Your task to perform on an android device: Search for razer kraken on bestbuy, select the first entry, and add it to the cart. Image 0: 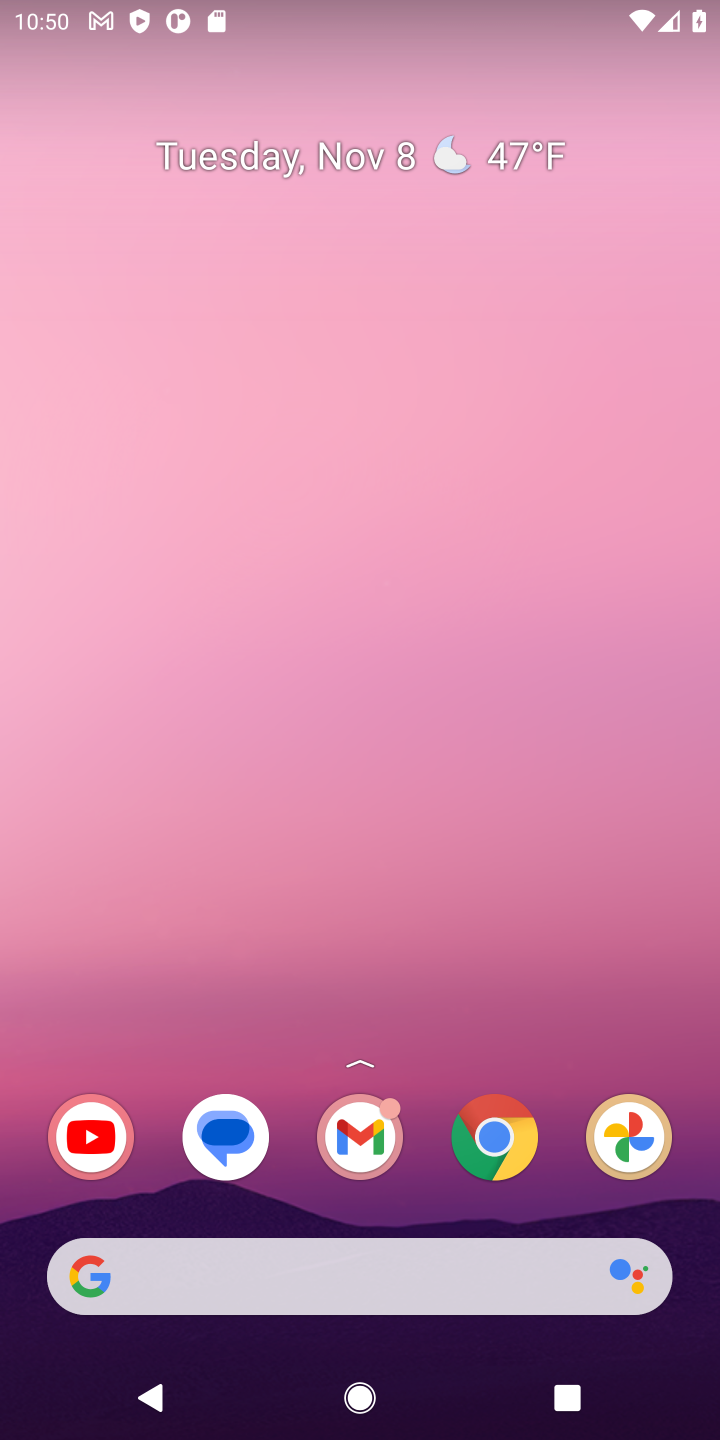
Step 0: click (494, 1137)
Your task to perform on an android device: Search for razer kraken on bestbuy, select the first entry, and add it to the cart. Image 1: 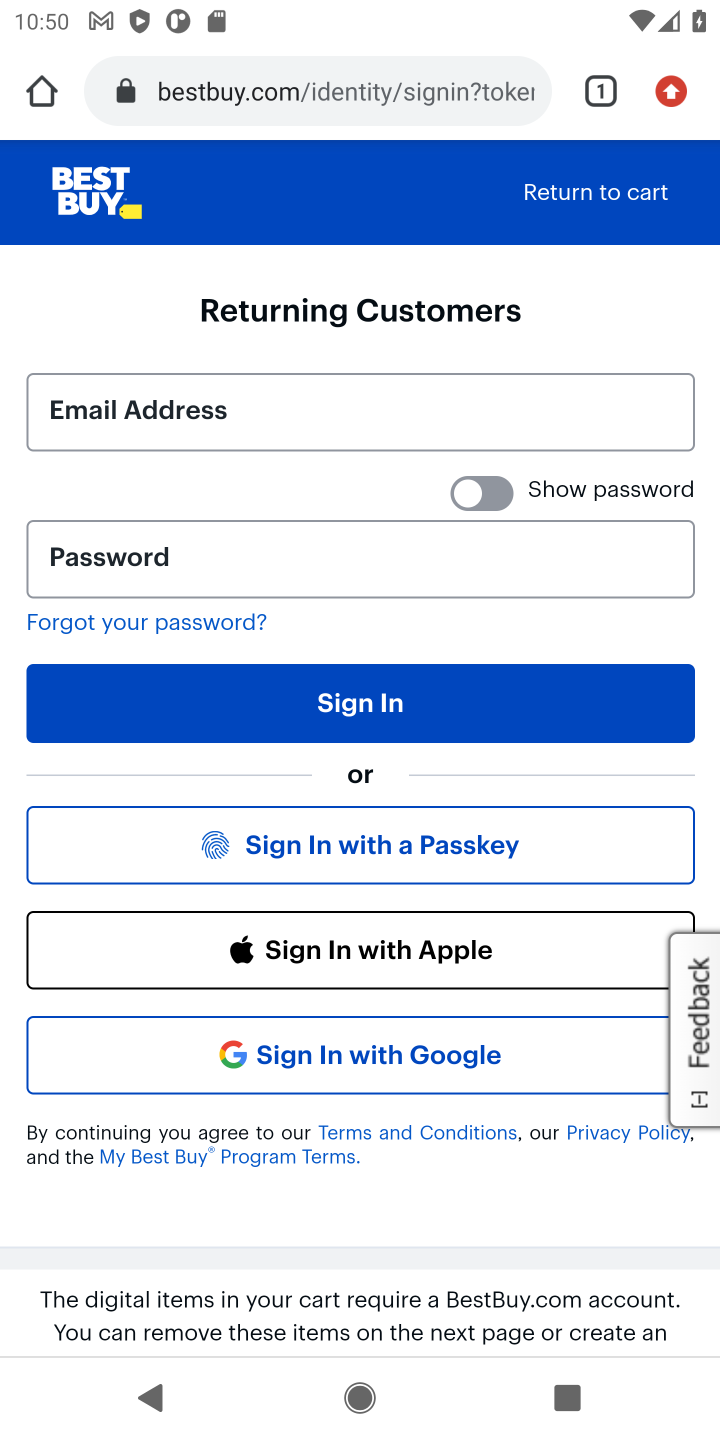
Step 1: click (414, 95)
Your task to perform on an android device: Search for razer kraken on bestbuy, select the first entry, and add it to the cart. Image 2: 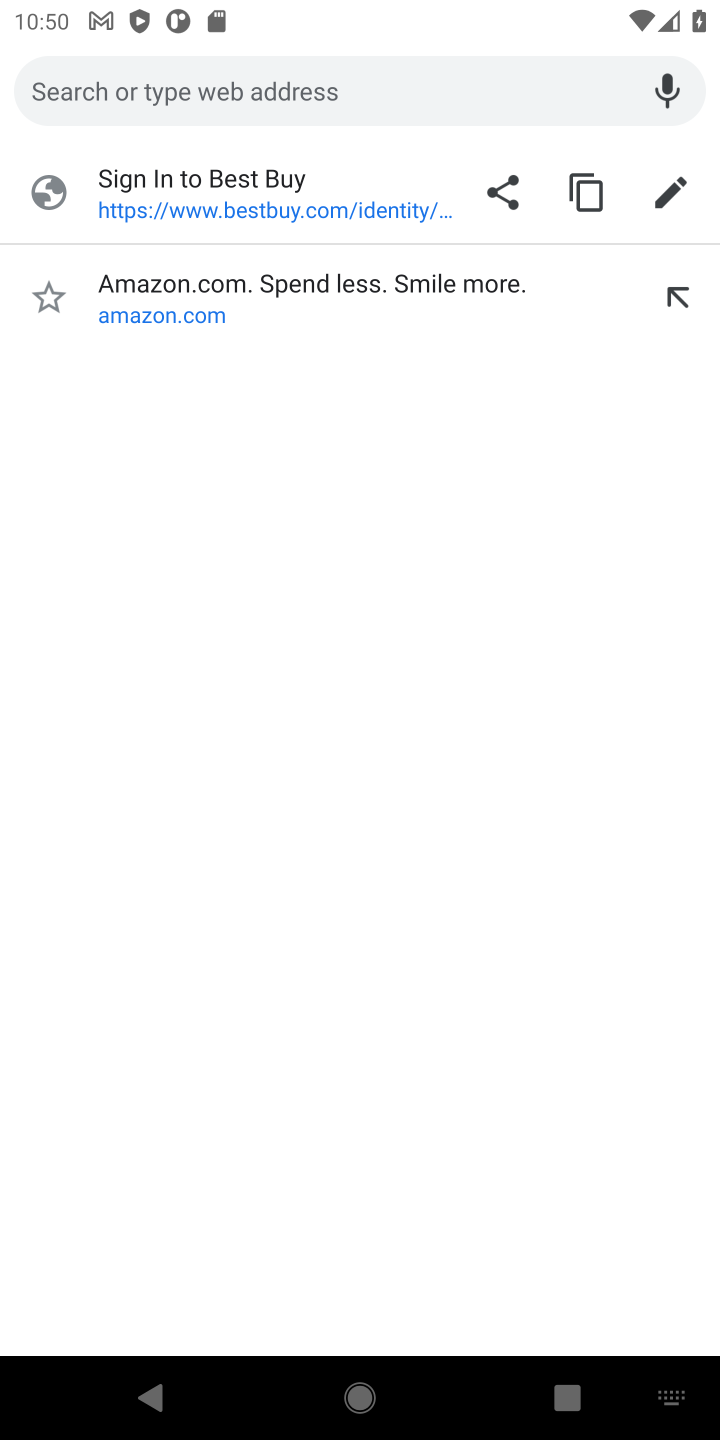
Step 2: type "bestbuy"
Your task to perform on an android device: Search for razer kraken on bestbuy, select the first entry, and add it to the cart. Image 3: 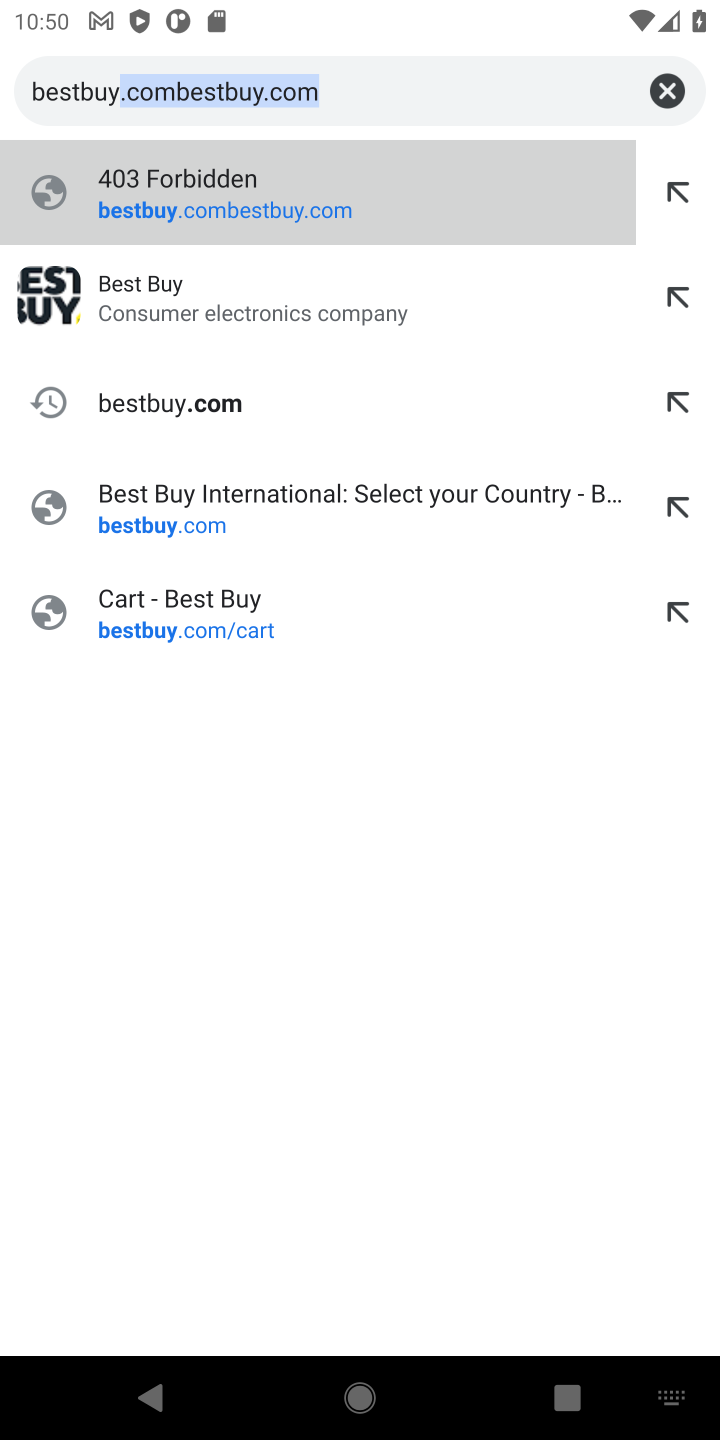
Step 3: click (155, 307)
Your task to perform on an android device: Search for razer kraken on bestbuy, select the first entry, and add it to the cart. Image 4: 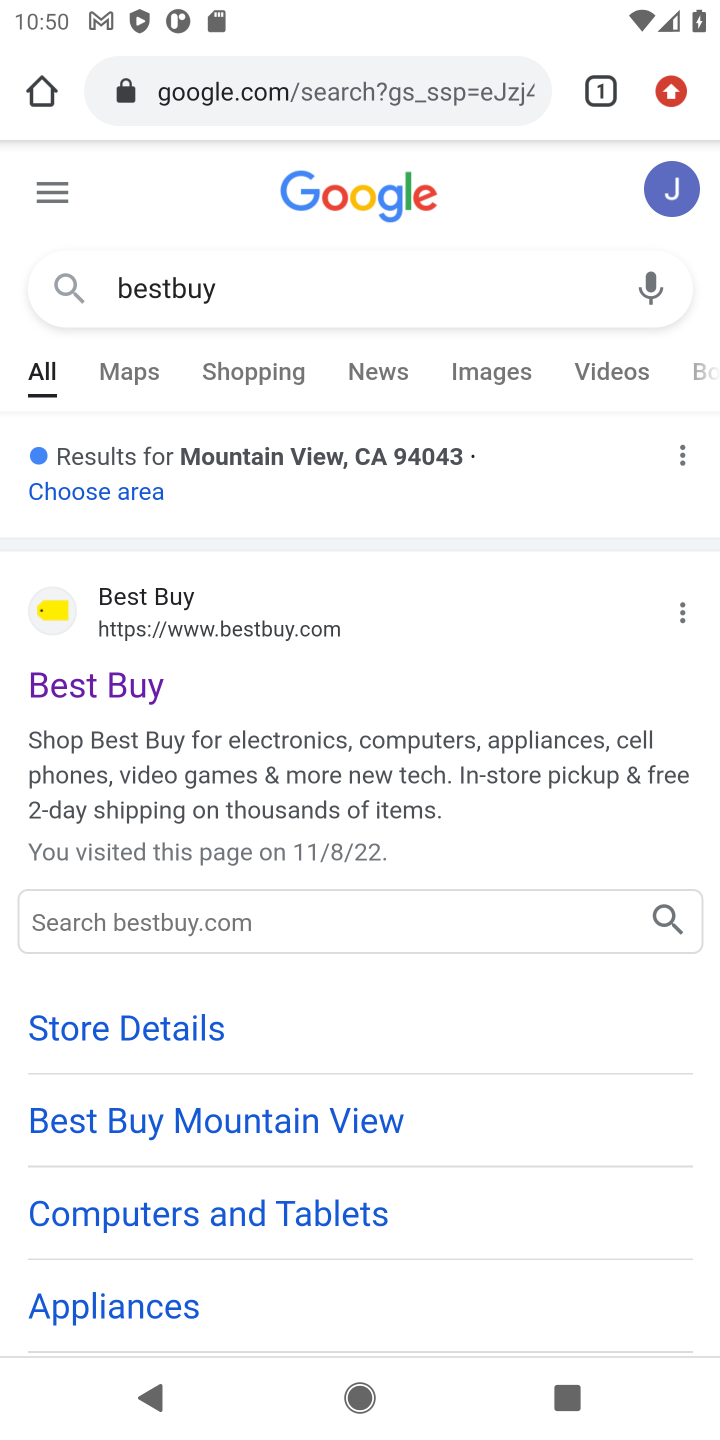
Step 4: click (138, 693)
Your task to perform on an android device: Search for razer kraken on bestbuy, select the first entry, and add it to the cart. Image 5: 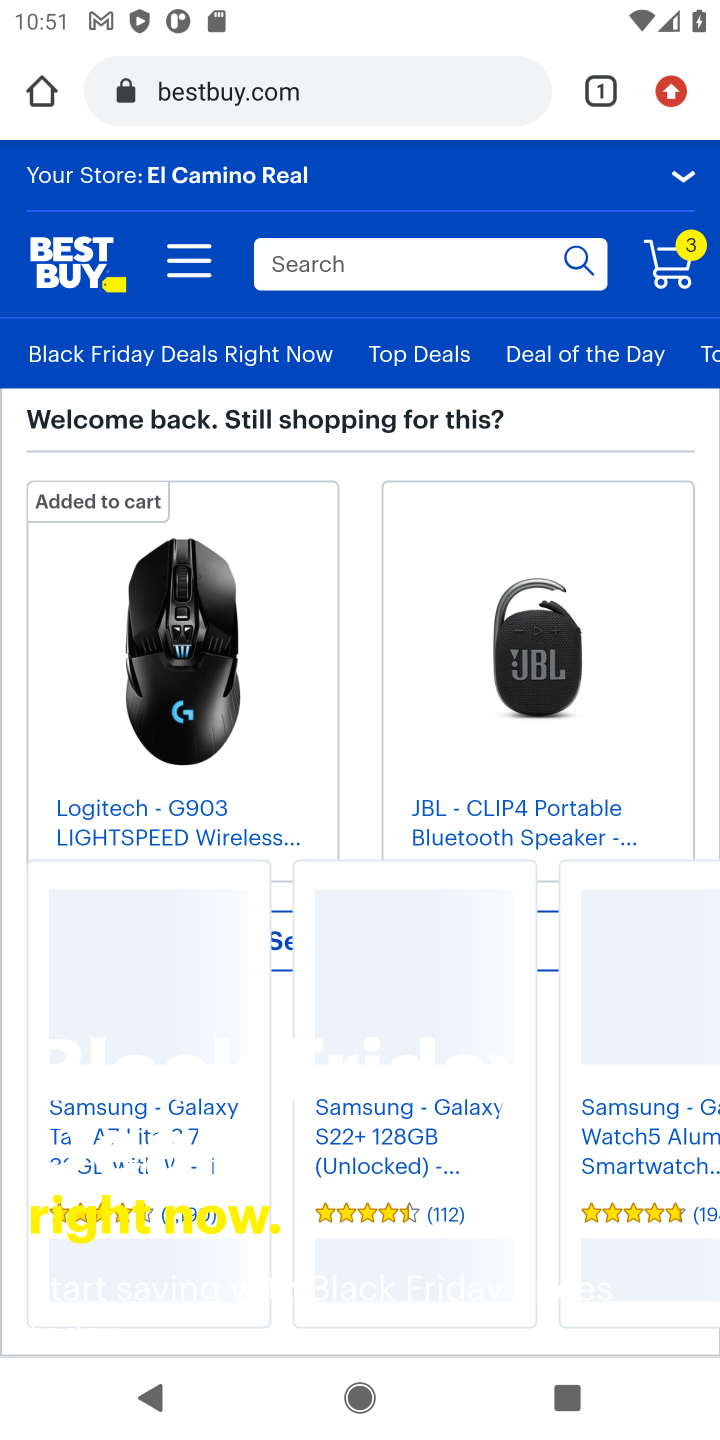
Step 5: click (400, 262)
Your task to perform on an android device: Search for razer kraken on bestbuy, select the first entry, and add it to the cart. Image 6: 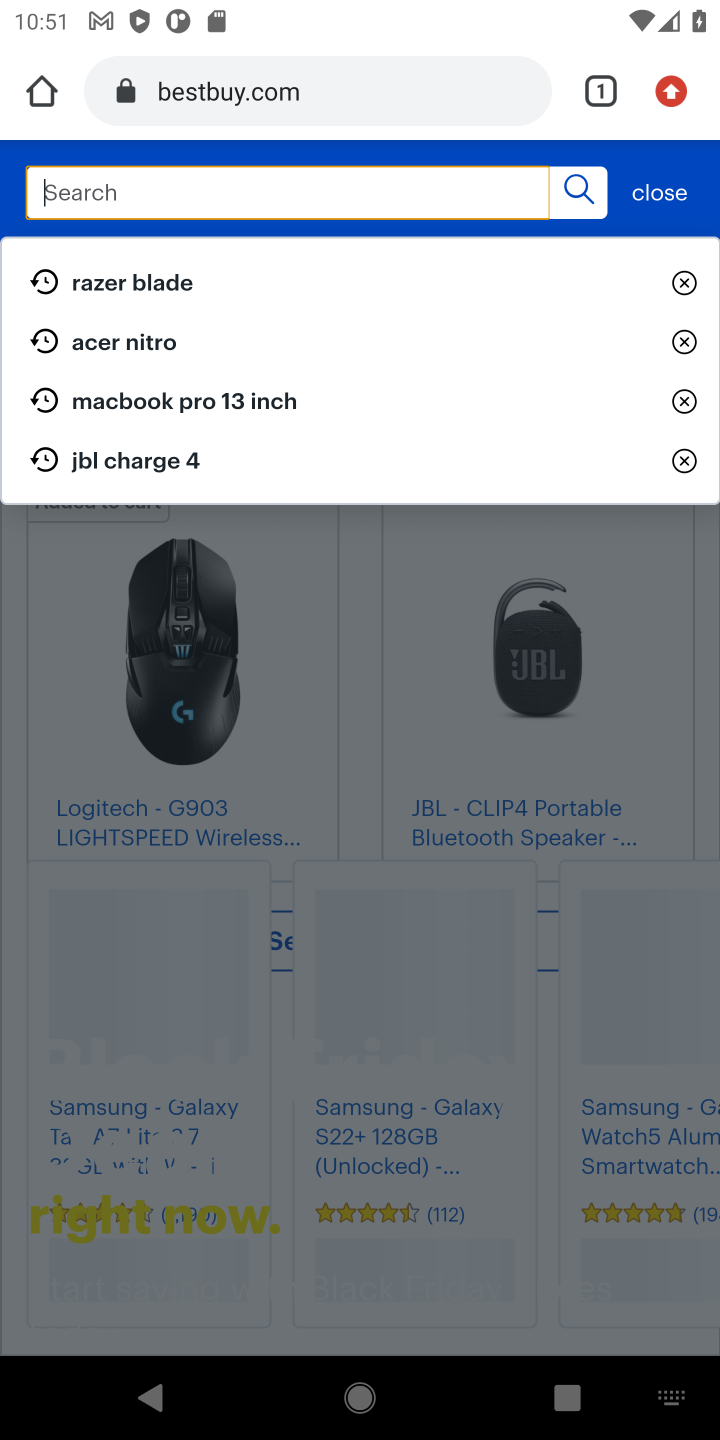
Step 6: type "razer kraken "
Your task to perform on an android device: Search for razer kraken on bestbuy, select the first entry, and add it to the cart. Image 7: 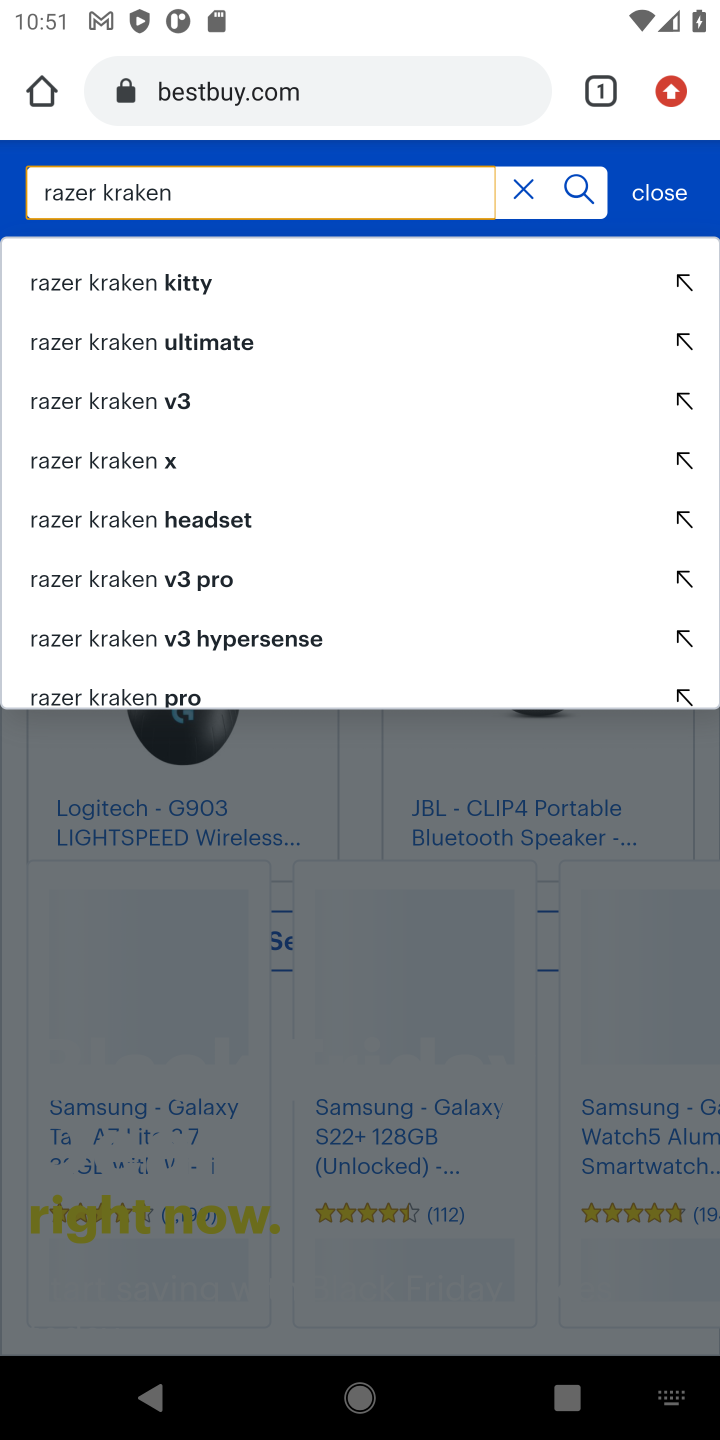
Step 7: click (588, 192)
Your task to perform on an android device: Search for razer kraken on bestbuy, select the first entry, and add it to the cart. Image 8: 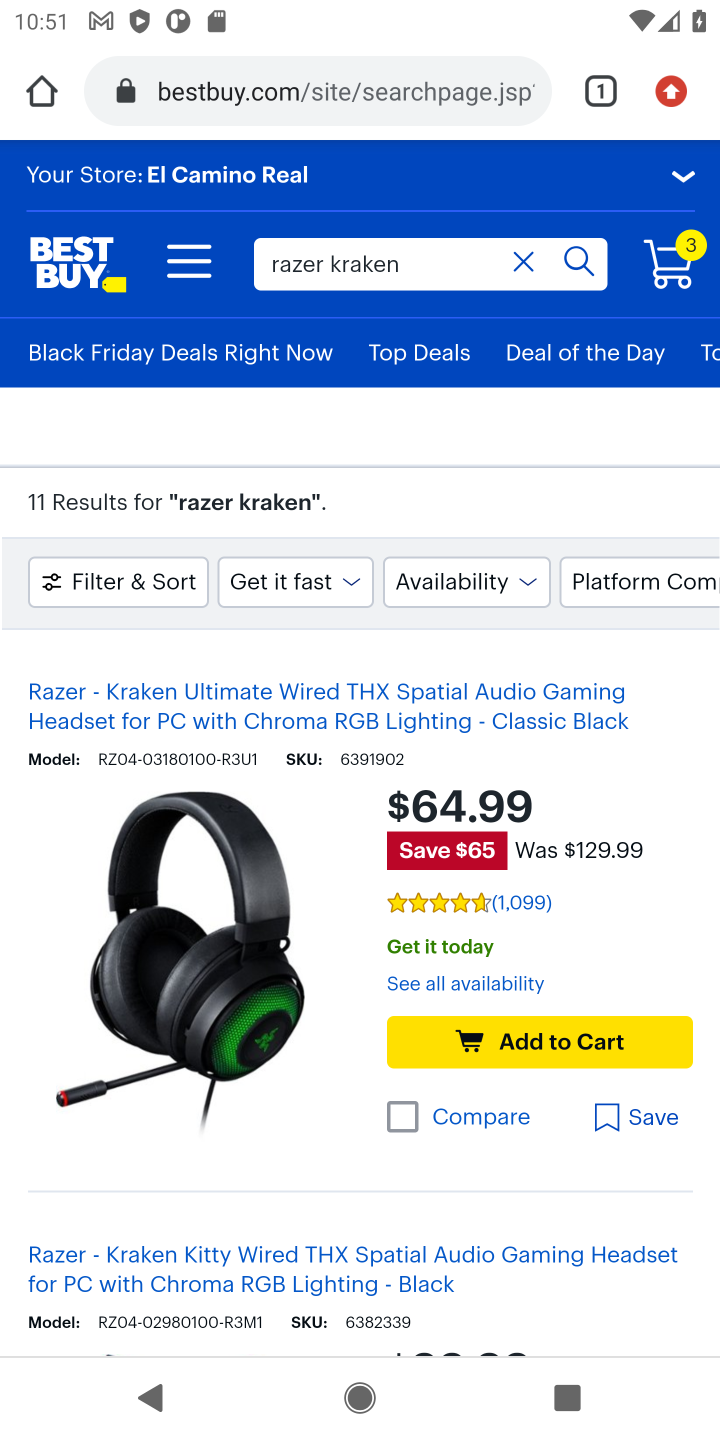
Step 8: click (555, 1048)
Your task to perform on an android device: Search for razer kraken on bestbuy, select the first entry, and add it to the cart. Image 9: 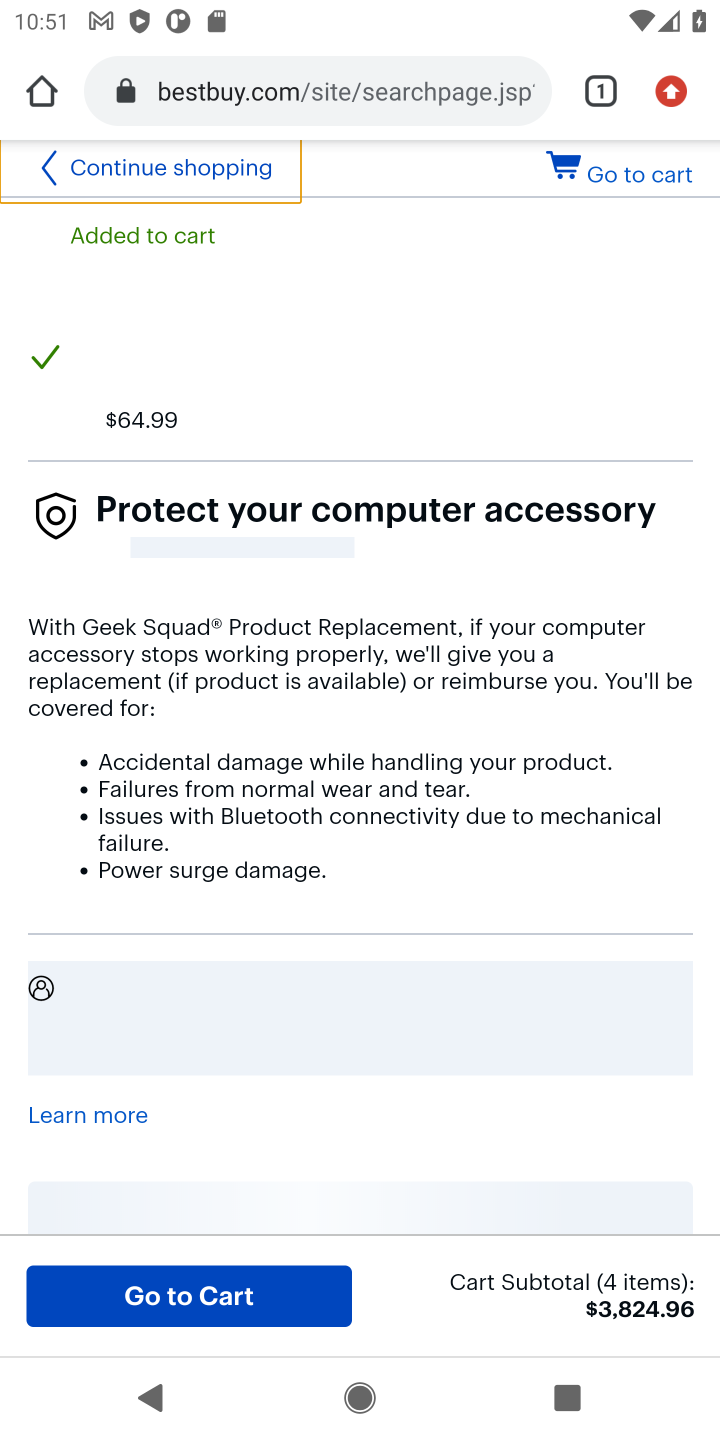
Step 9: click (233, 1293)
Your task to perform on an android device: Search for razer kraken on bestbuy, select the first entry, and add it to the cart. Image 10: 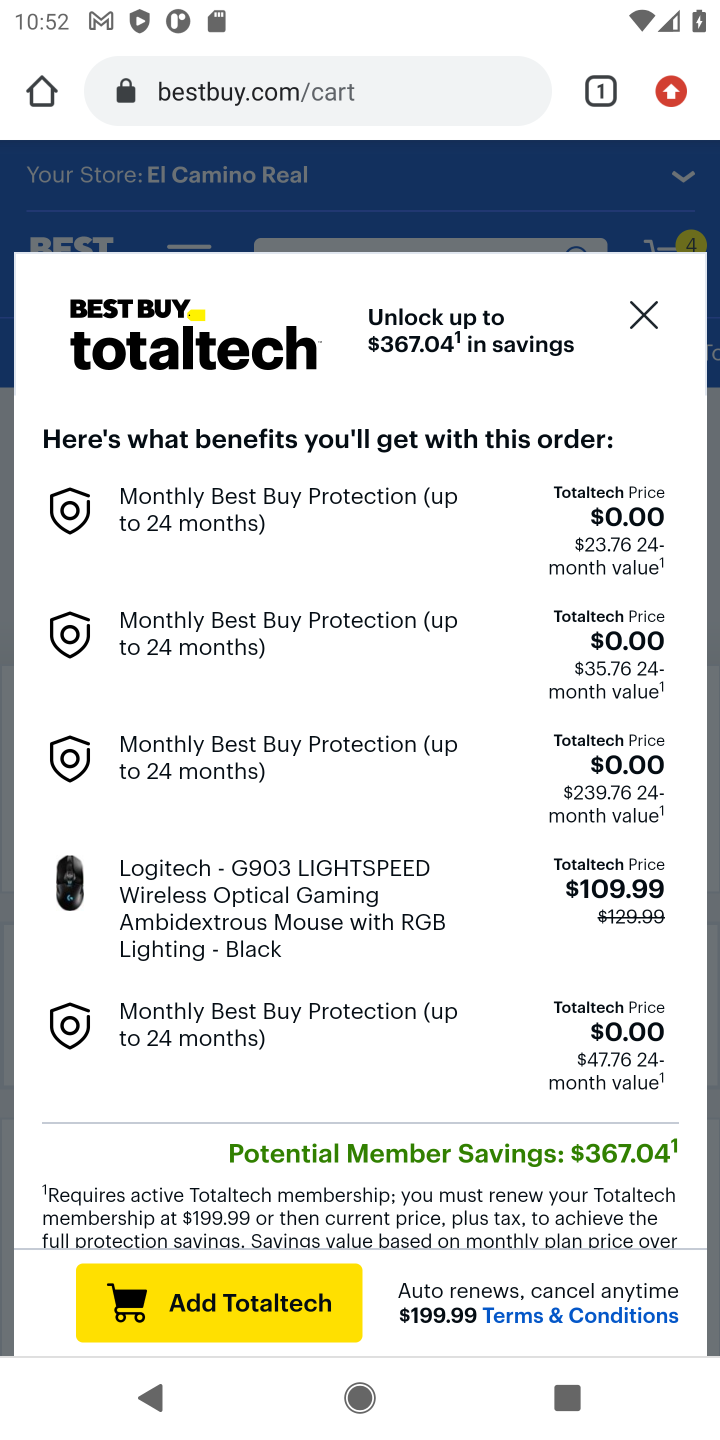
Step 10: press home button
Your task to perform on an android device: Search for razer kraken on bestbuy, select the first entry, and add it to the cart. Image 11: 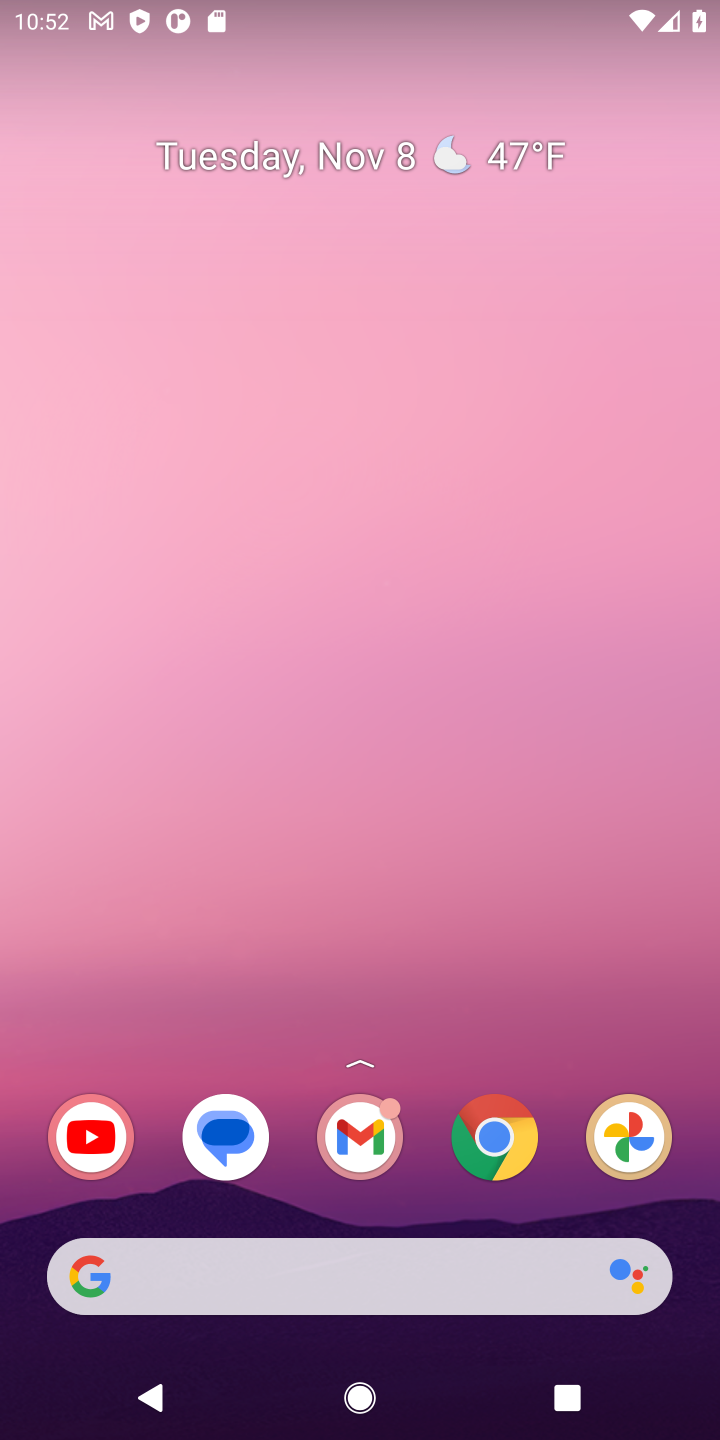
Step 11: click (491, 1145)
Your task to perform on an android device: Search for razer kraken on bestbuy, select the first entry, and add it to the cart. Image 12: 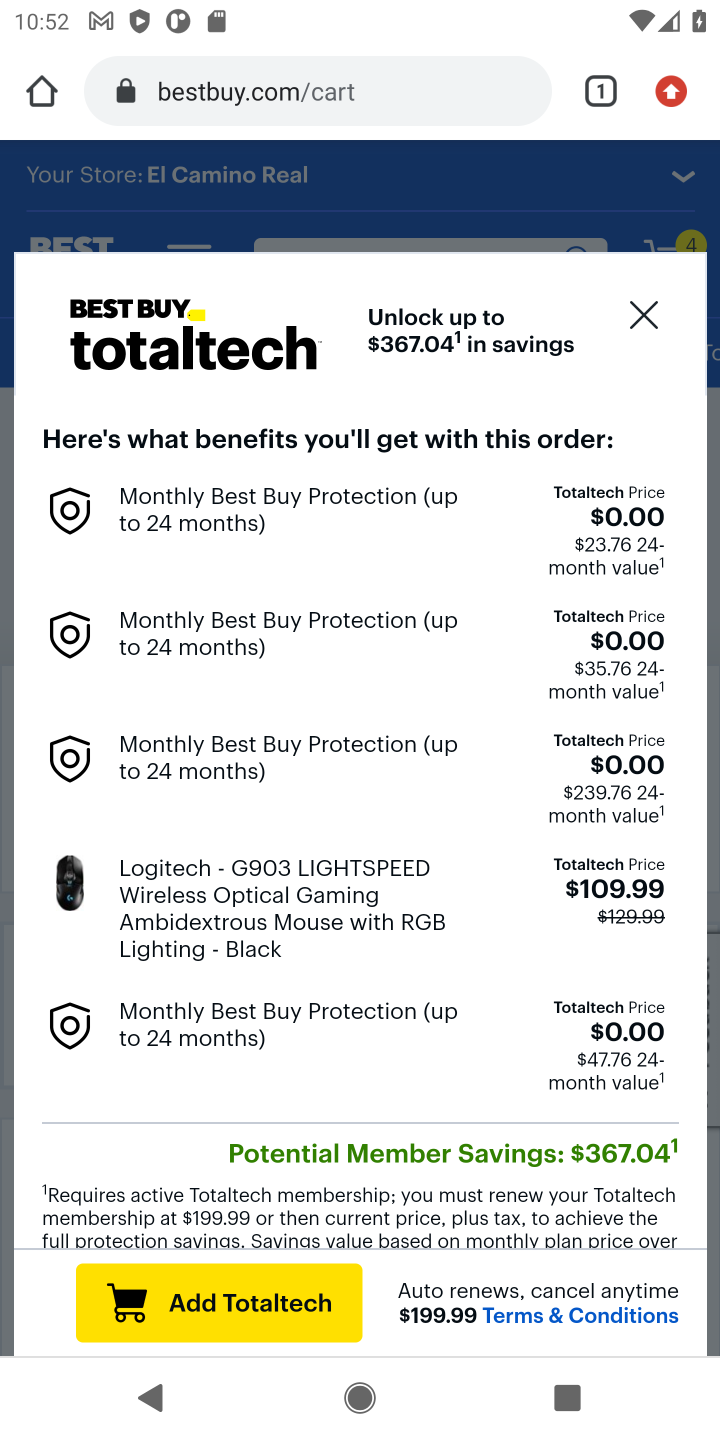
Step 12: click (639, 307)
Your task to perform on an android device: Search for razer kraken on bestbuy, select the first entry, and add it to the cart. Image 13: 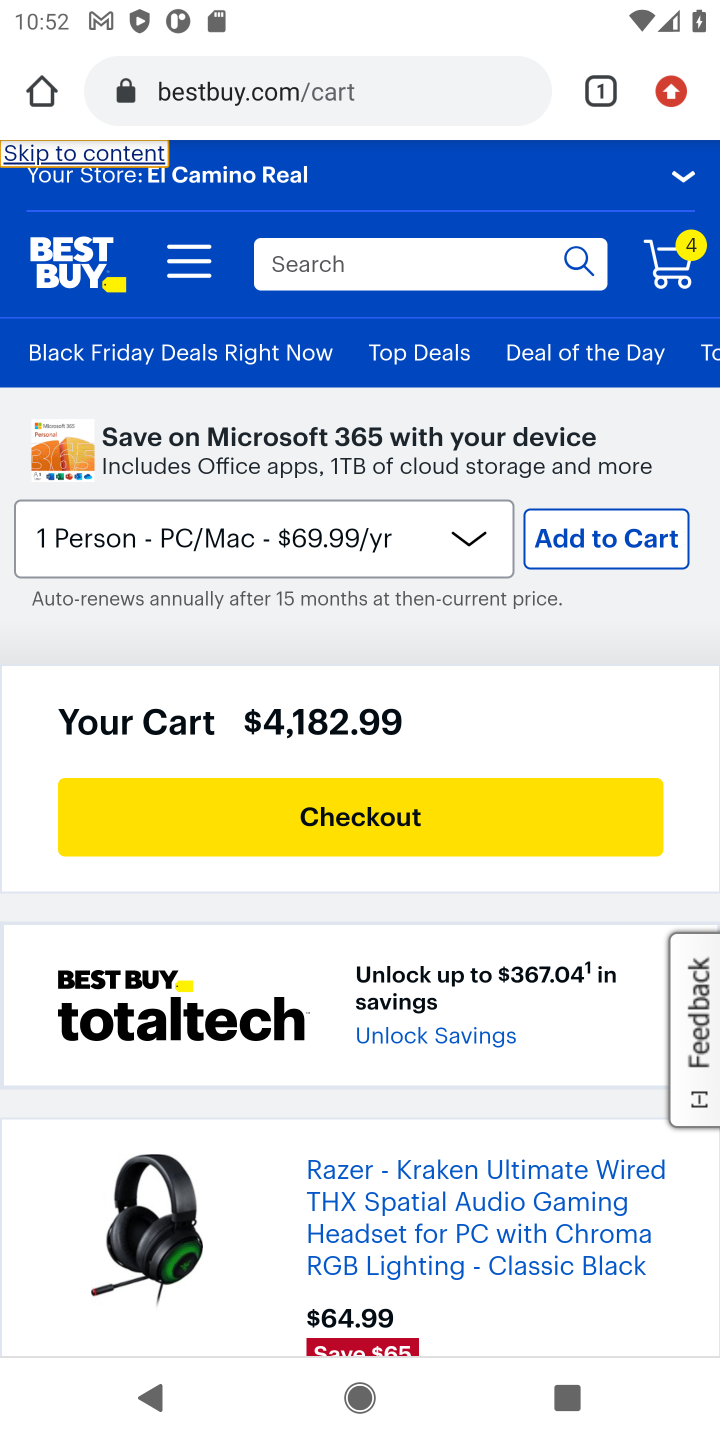
Step 13: task complete